Your task to perform on an android device: Open my contact list Image 0: 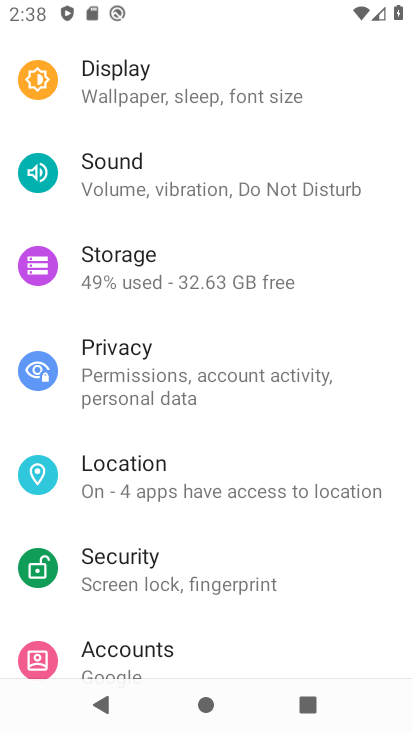
Step 0: press home button
Your task to perform on an android device: Open my contact list Image 1: 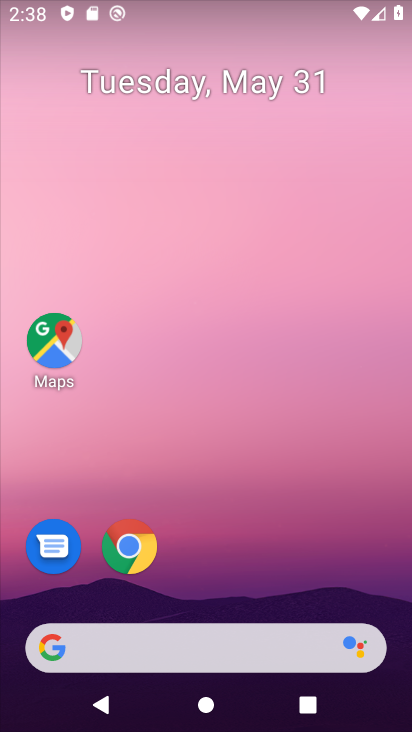
Step 1: drag from (202, 540) to (246, 89)
Your task to perform on an android device: Open my contact list Image 2: 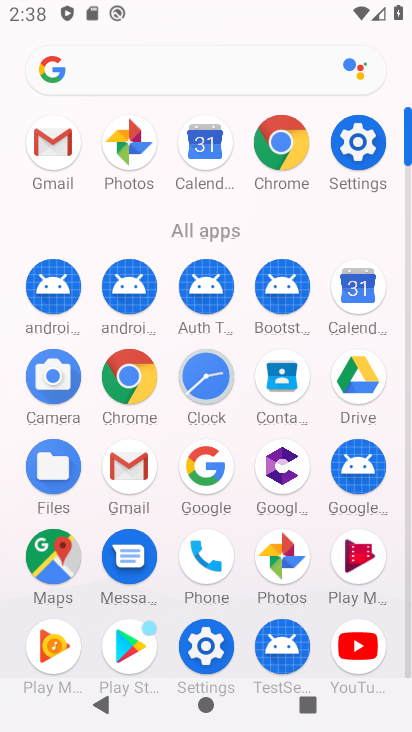
Step 2: click (290, 379)
Your task to perform on an android device: Open my contact list Image 3: 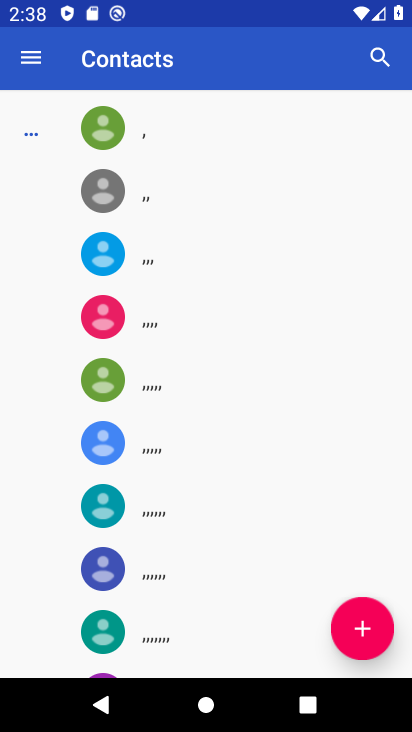
Step 3: task complete